Your task to perform on an android device: turn on bluetooth scan Image 0: 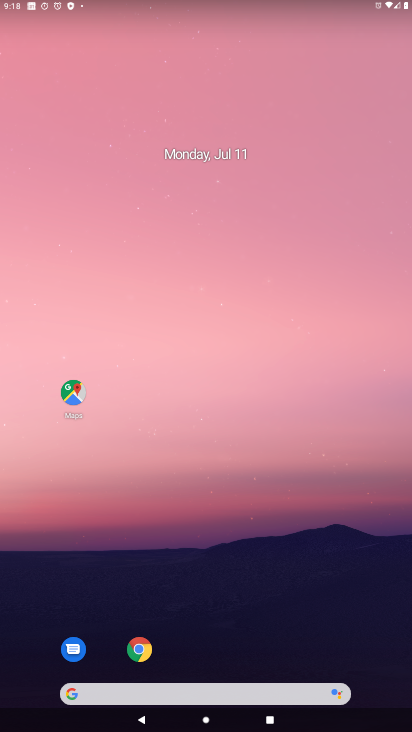
Step 0: drag from (247, 646) to (330, 202)
Your task to perform on an android device: turn on bluetooth scan Image 1: 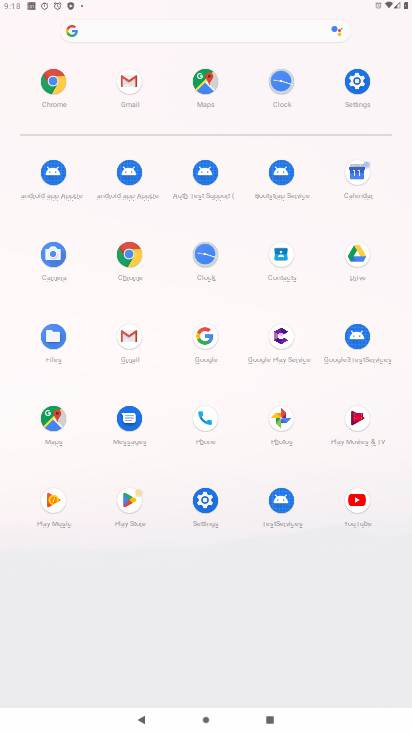
Step 1: click (356, 82)
Your task to perform on an android device: turn on bluetooth scan Image 2: 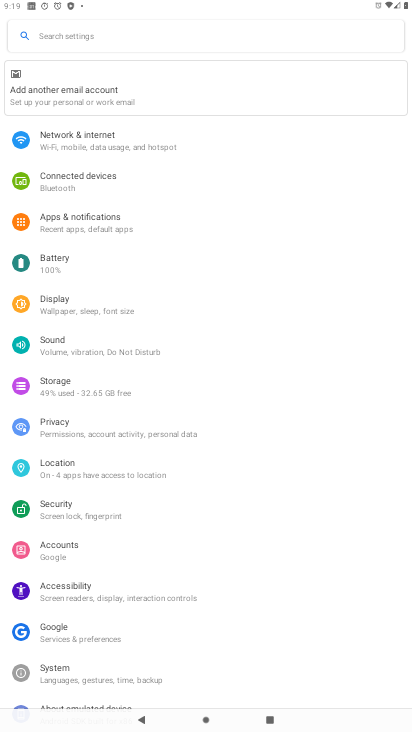
Step 2: click (72, 470)
Your task to perform on an android device: turn on bluetooth scan Image 3: 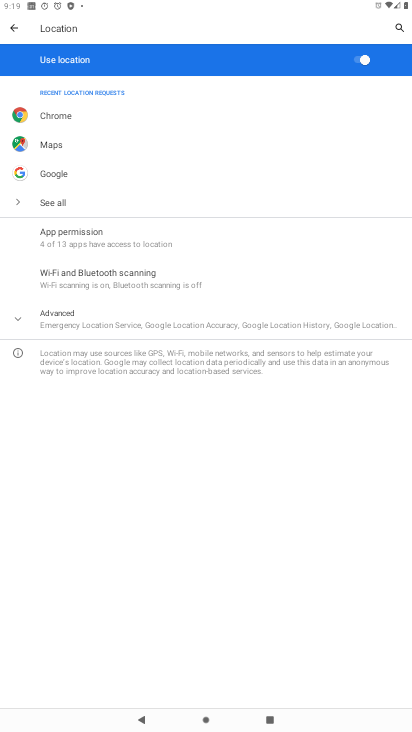
Step 3: click (165, 285)
Your task to perform on an android device: turn on bluetooth scan Image 4: 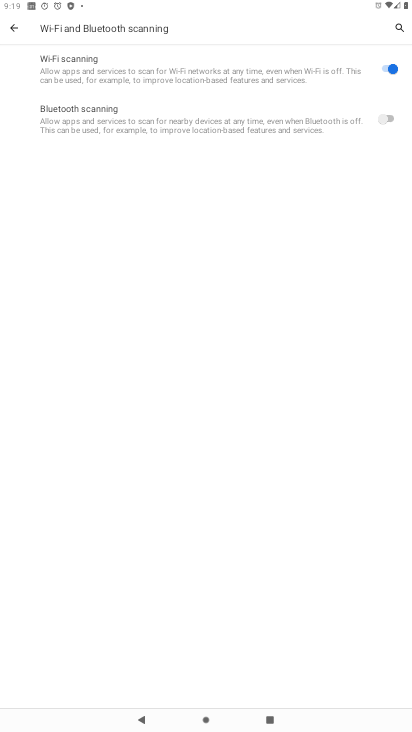
Step 4: click (385, 119)
Your task to perform on an android device: turn on bluetooth scan Image 5: 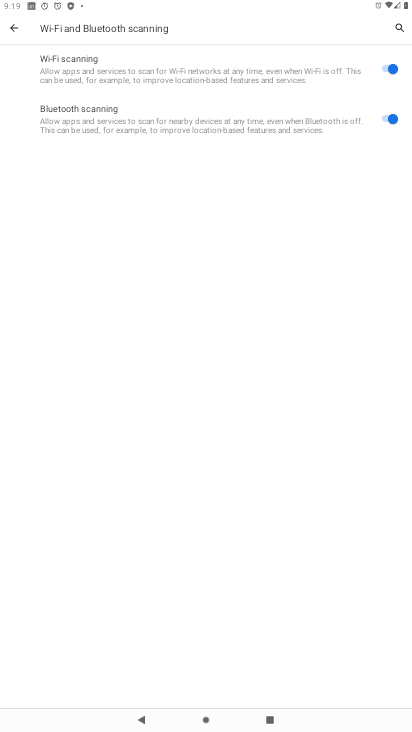
Step 5: task complete